Your task to perform on an android device: turn on sleep mode Image 0: 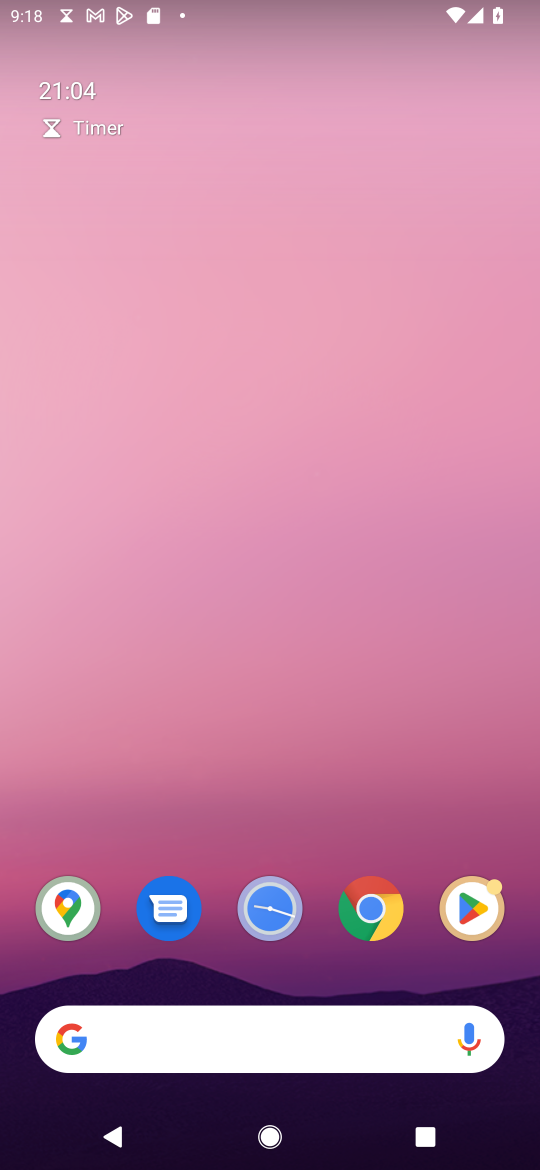
Step 0: click (528, 772)
Your task to perform on an android device: turn on sleep mode Image 1: 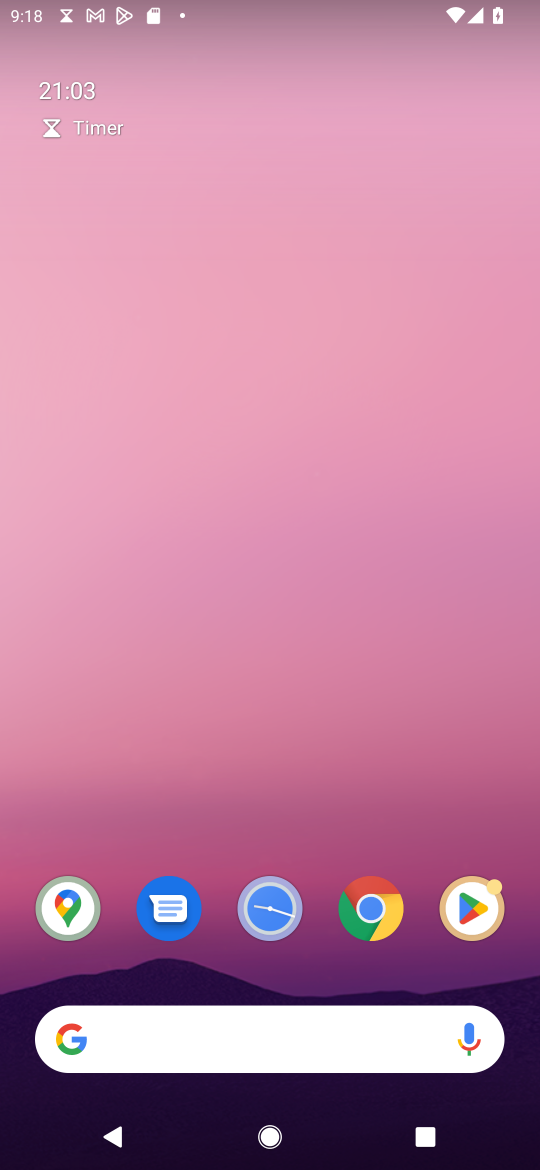
Step 1: drag from (257, 1046) to (236, 267)
Your task to perform on an android device: turn on sleep mode Image 2: 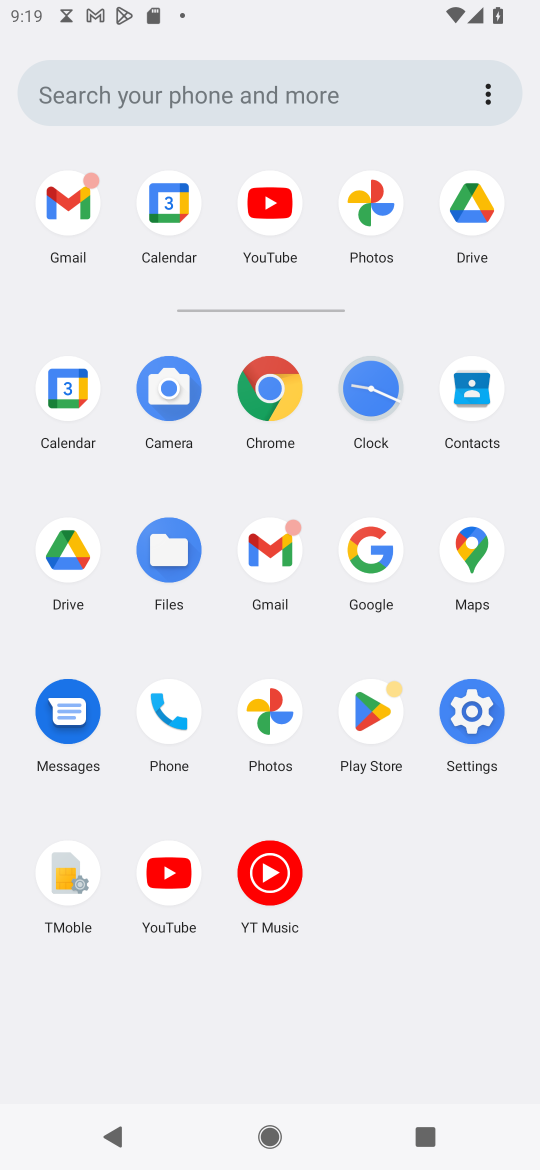
Step 2: click (468, 701)
Your task to perform on an android device: turn on sleep mode Image 3: 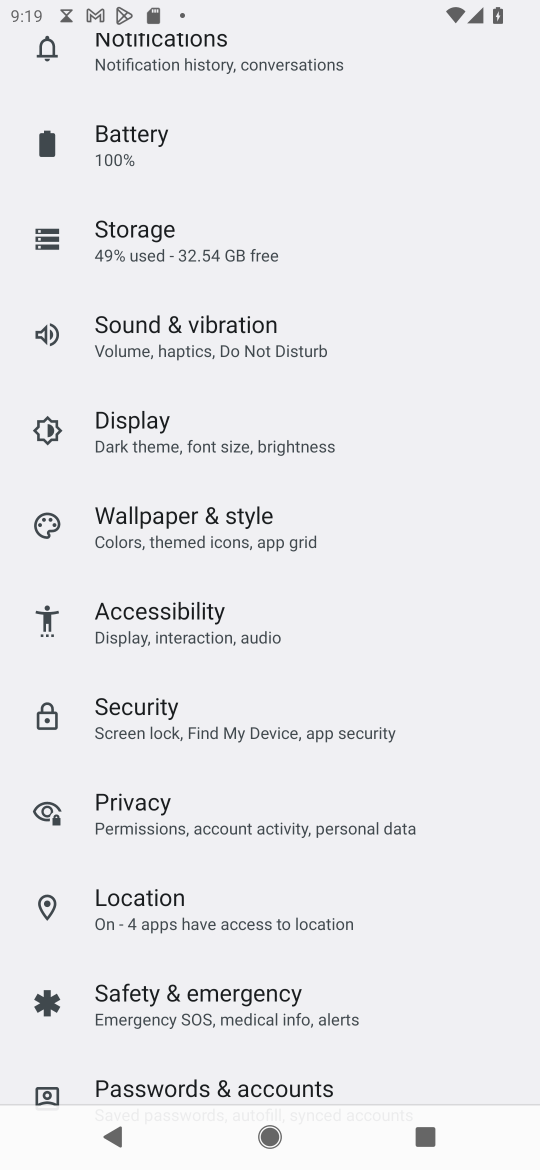
Step 3: click (206, 444)
Your task to perform on an android device: turn on sleep mode Image 4: 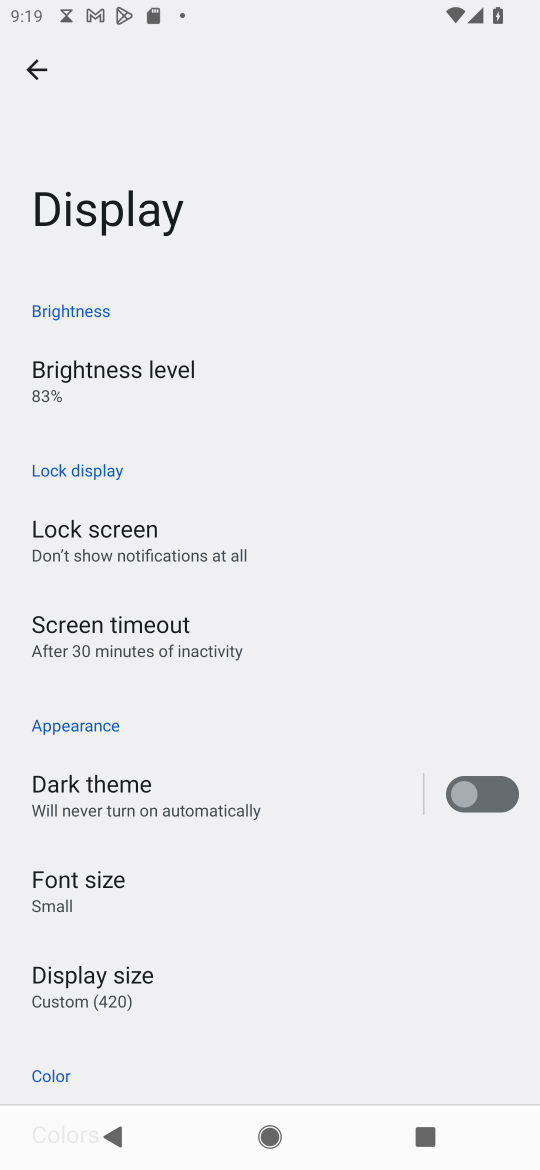
Step 4: task complete